Your task to perform on an android device: turn on translation in the chrome app Image 0: 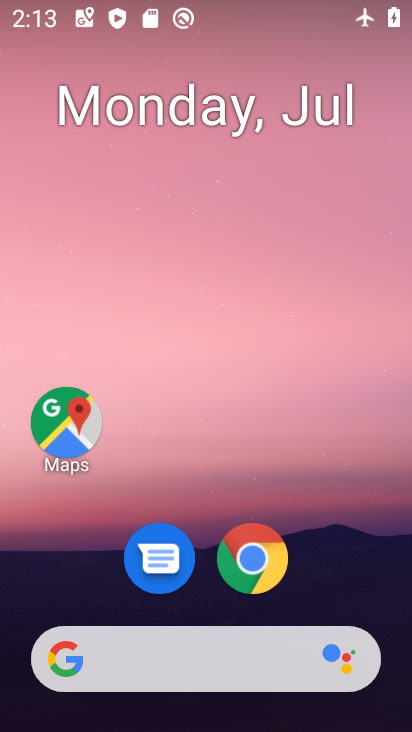
Step 0: drag from (374, 557) to (378, 53)
Your task to perform on an android device: turn on translation in the chrome app Image 1: 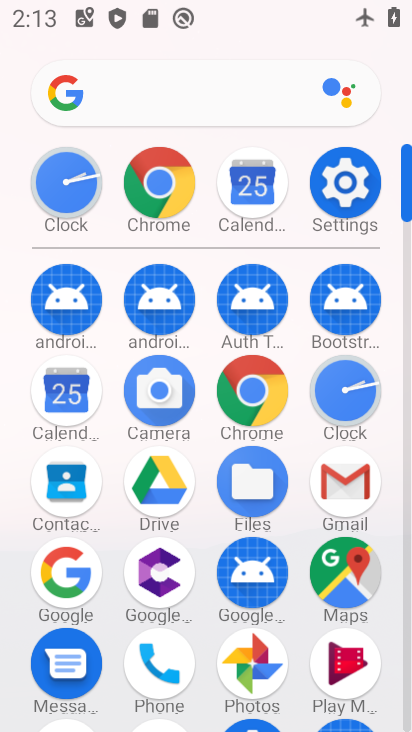
Step 1: click (267, 398)
Your task to perform on an android device: turn on translation in the chrome app Image 2: 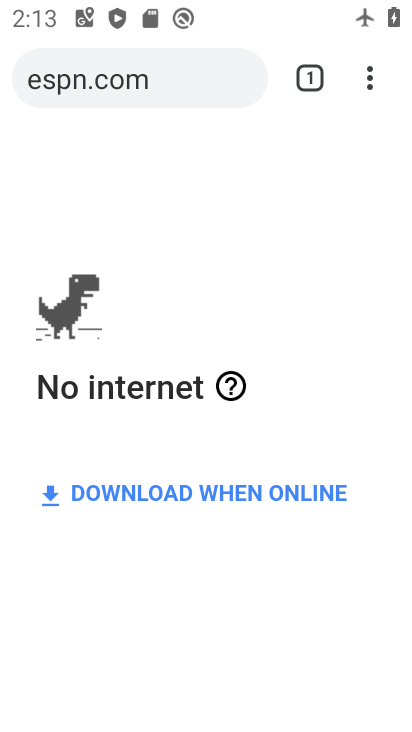
Step 2: click (371, 90)
Your task to perform on an android device: turn on translation in the chrome app Image 3: 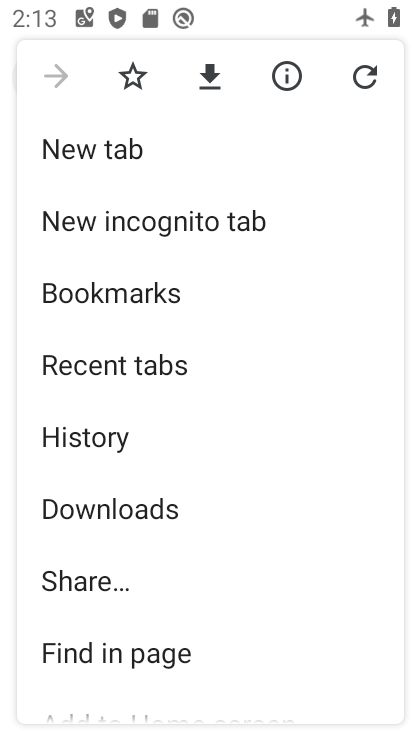
Step 3: drag from (320, 380) to (300, 234)
Your task to perform on an android device: turn on translation in the chrome app Image 4: 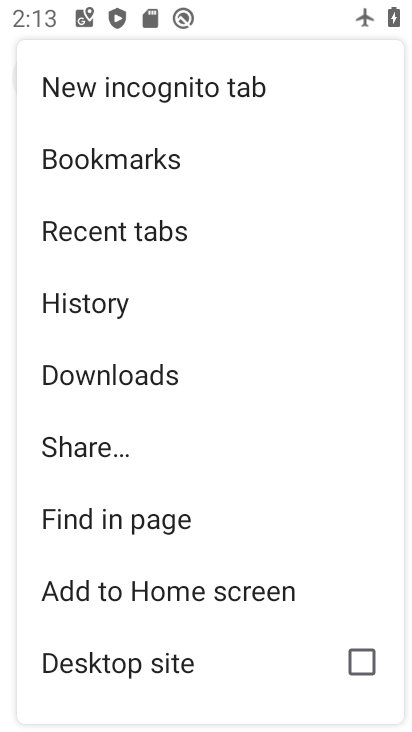
Step 4: drag from (292, 414) to (268, 250)
Your task to perform on an android device: turn on translation in the chrome app Image 5: 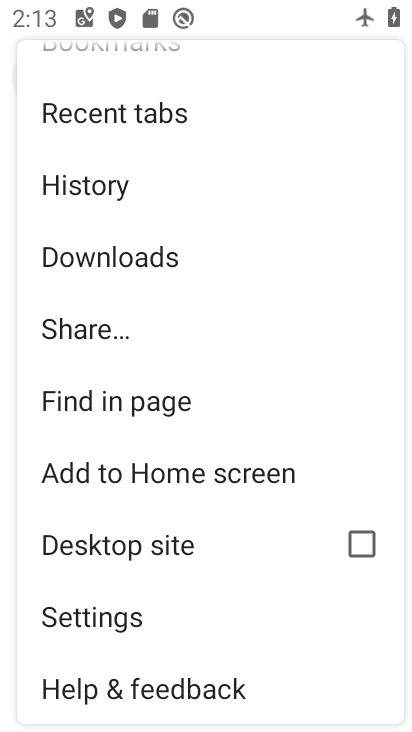
Step 5: drag from (262, 511) to (247, 210)
Your task to perform on an android device: turn on translation in the chrome app Image 6: 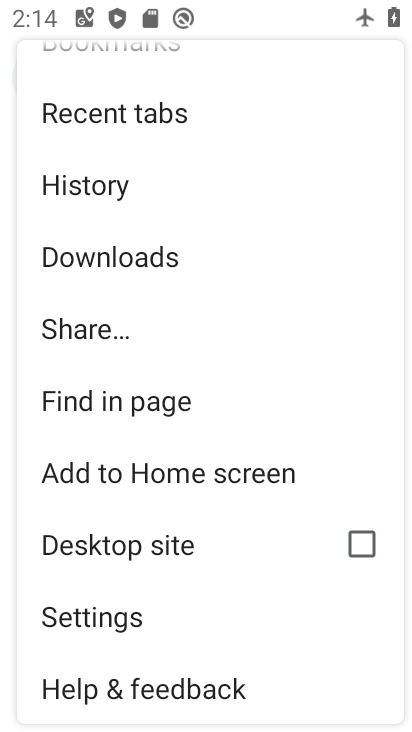
Step 6: drag from (215, 572) to (217, 392)
Your task to perform on an android device: turn on translation in the chrome app Image 7: 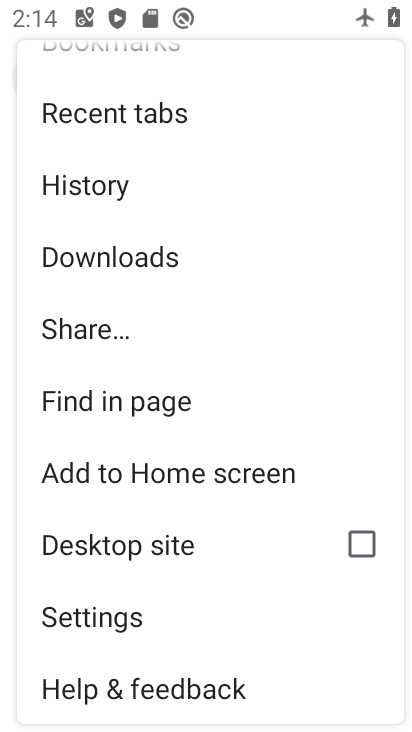
Step 7: click (158, 618)
Your task to perform on an android device: turn on translation in the chrome app Image 8: 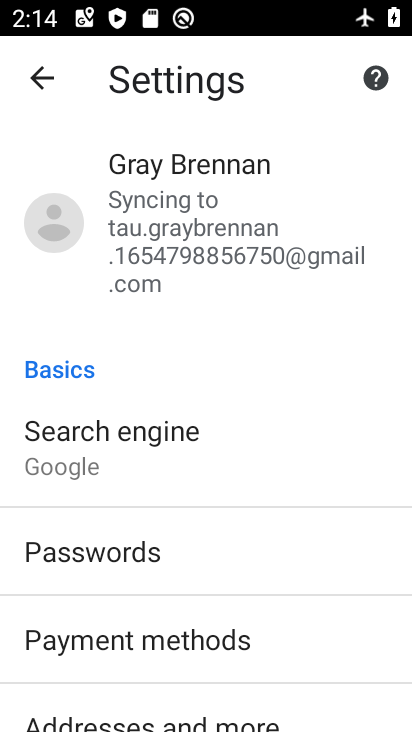
Step 8: drag from (281, 627) to (277, 503)
Your task to perform on an android device: turn on translation in the chrome app Image 9: 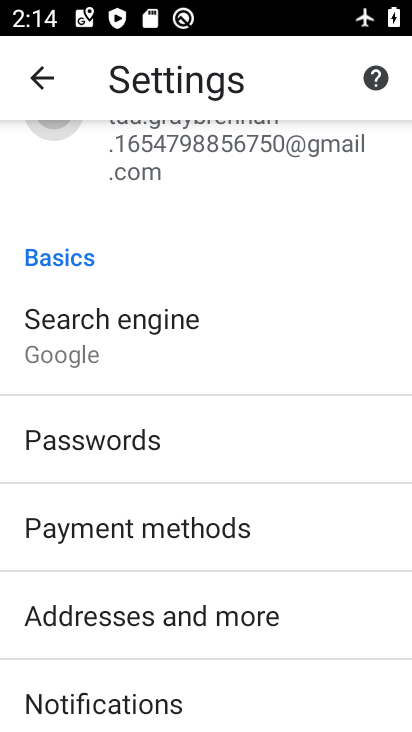
Step 9: drag from (322, 576) to (329, 326)
Your task to perform on an android device: turn on translation in the chrome app Image 10: 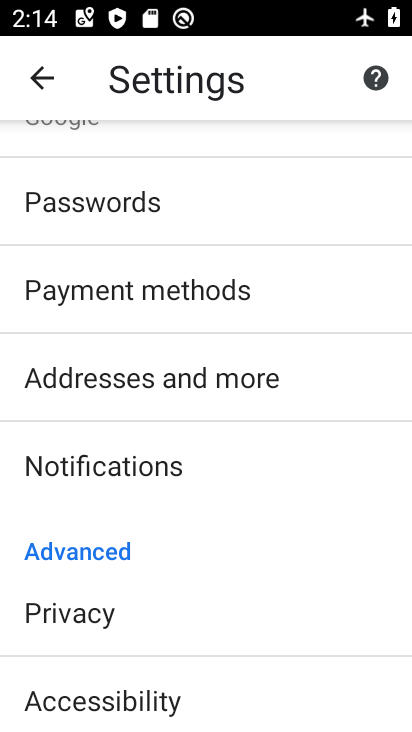
Step 10: drag from (326, 500) to (312, 382)
Your task to perform on an android device: turn on translation in the chrome app Image 11: 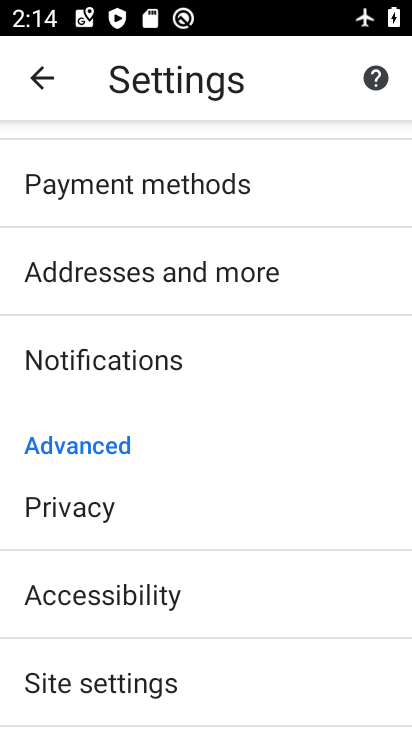
Step 11: drag from (309, 526) to (308, 398)
Your task to perform on an android device: turn on translation in the chrome app Image 12: 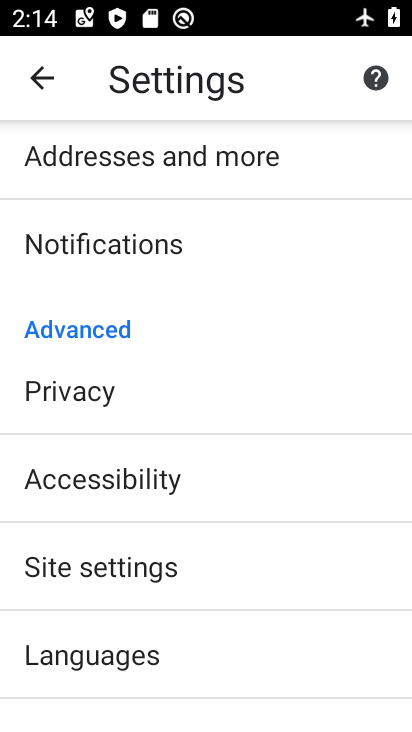
Step 12: drag from (315, 500) to (312, 346)
Your task to perform on an android device: turn on translation in the chrome app Image 13: 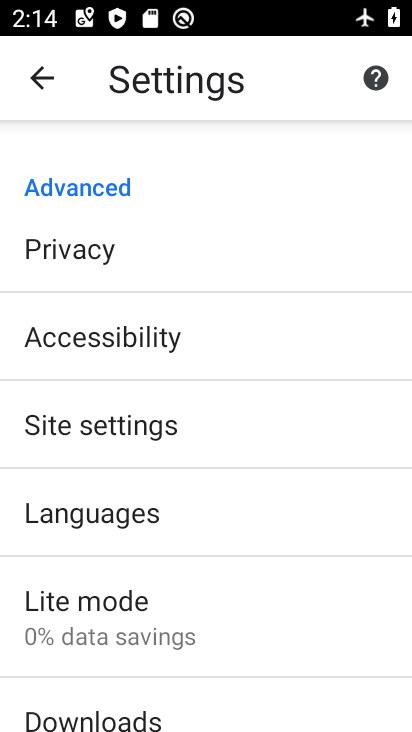
Step 13: drag from (306, 561) to (288, 358)
Your task to perform on an android device: turn on translation in the chrome app Image 14: 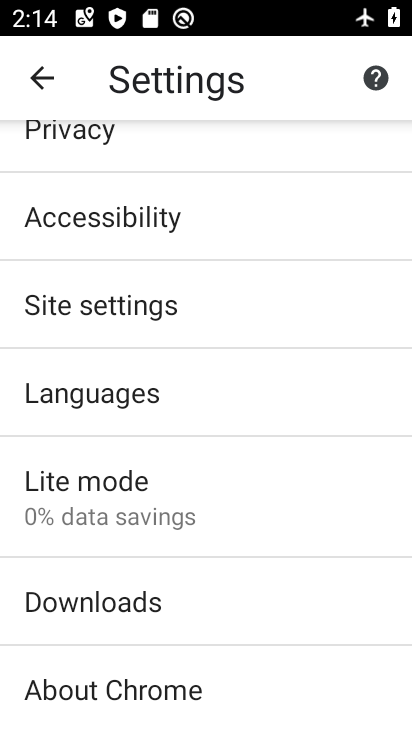
Step 14: drag from (285, 543) to (287, 332)
Your task to perform on an android device: turn on translation in the chrome app Image 15: 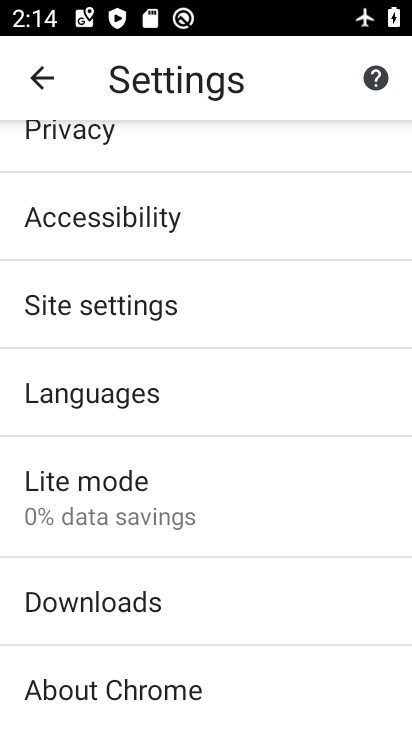
Step 15: click (271, 391)
Your task to perform on an android device: turn on translation in the chrome app Image 16: 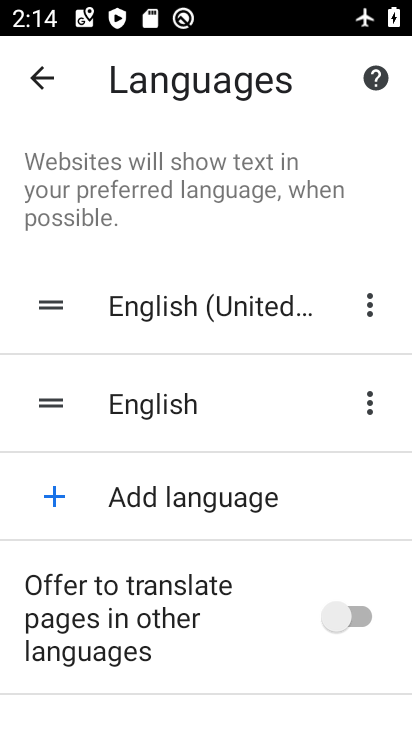
Step 16: click (348, 614)
Your task to perform on an android device: turn on translation in the chrome app Image 17: 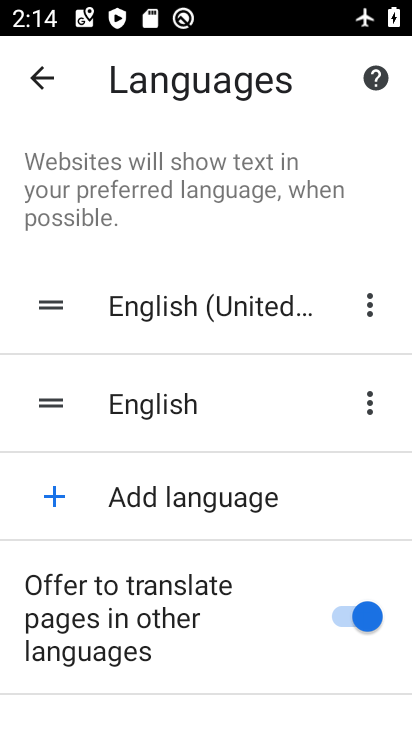
Step 17: task complete